Your task to perform on an android device: Go to Yahoo.com Image 0: 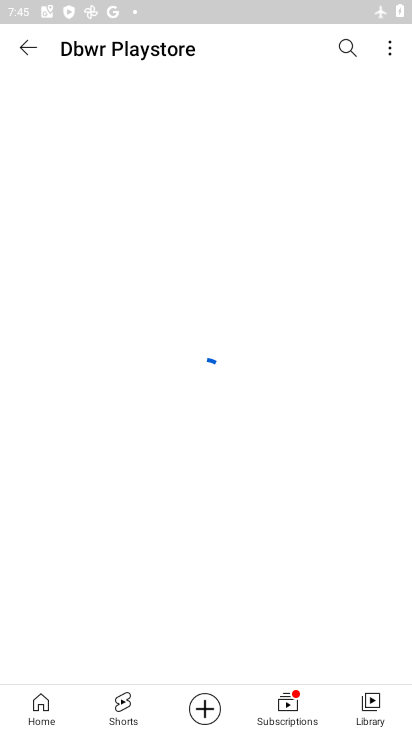
Step 0: press home button
Your task to perform on an android device: Go to Yahoo.com Image 1: 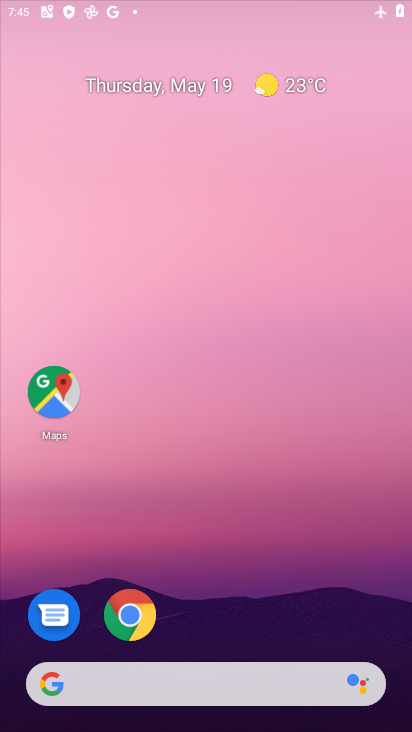
Step 1: drag from (359, 622) to (189, 140)
Your task to perform on an android device: Go to Yahoo.com Image 2: 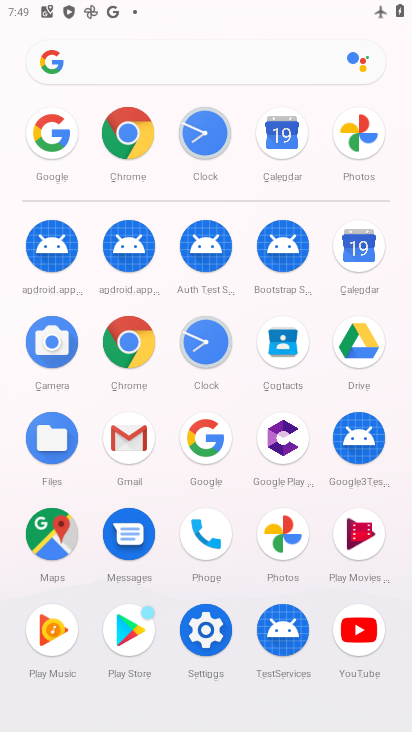
Step 2: click (126, 346)
Your task to perform on an android device: Go to Yahoo.com Image 3: 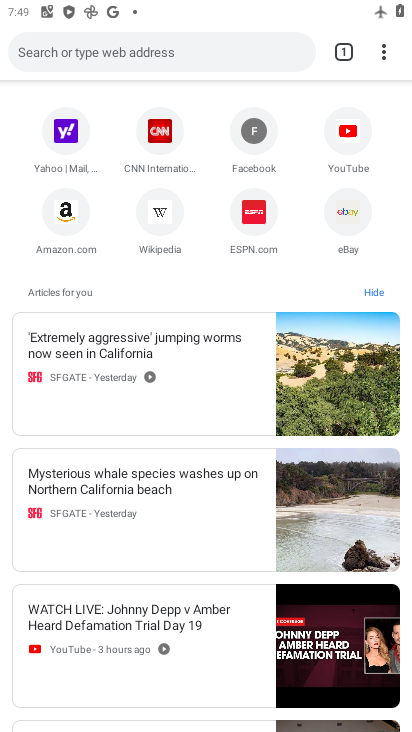
Step 3: click (58, 131)
Your task to perform on an android device: Go to Yahoo.com Image 4: 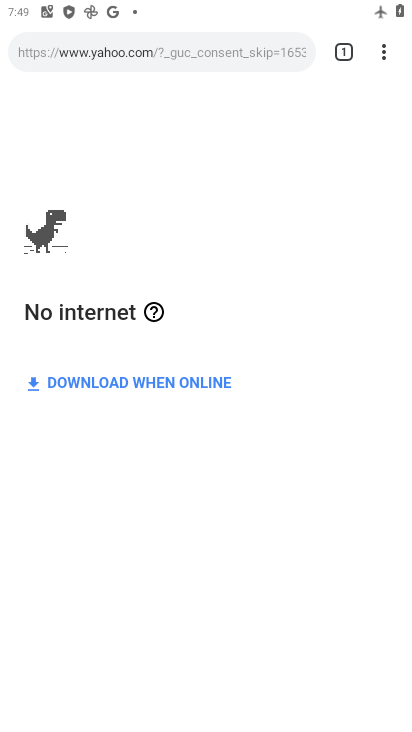
Step 4: task complete